Your task to perform on an android device: Go to Android settings Image 0: 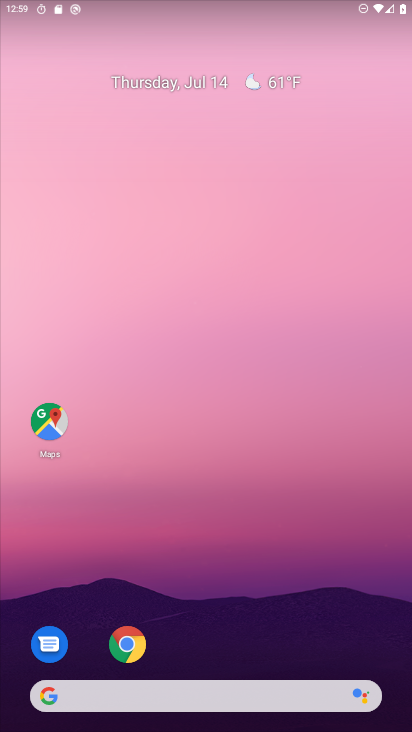
Step 0: drag from (318, 666) to (298, 76)
Your task to perform on an android device: Go to Android settings Image 1: 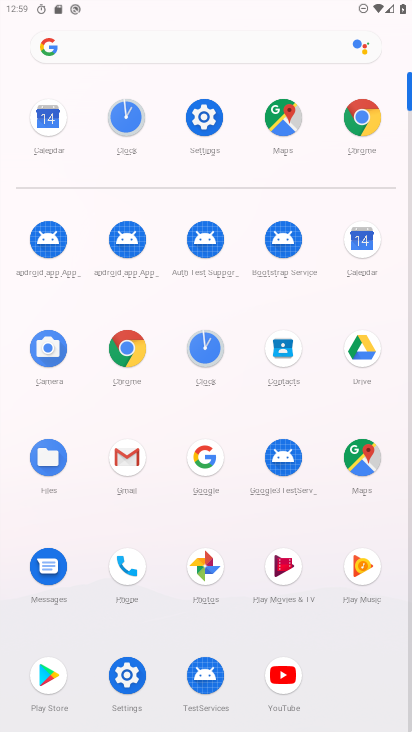
Step 1: click (207, 122)
Your task to perform on an android device: Go to Android settings Image 2: 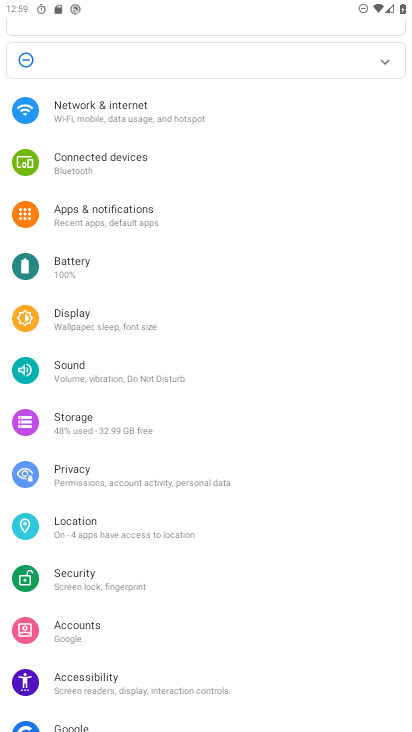
Step 2: drag from (261, 709) to (243, 137)
Your task to perform on an android device: Go to Android settings Image 3: 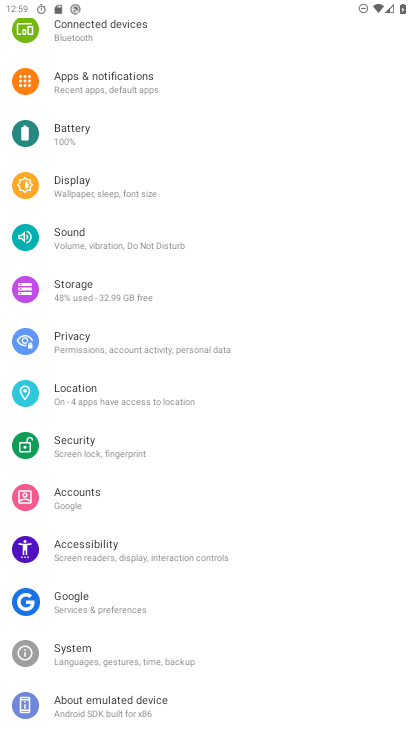
Step 3: click (169, 696)
Your task to perform on an android device: Go to Android settings Image 4: 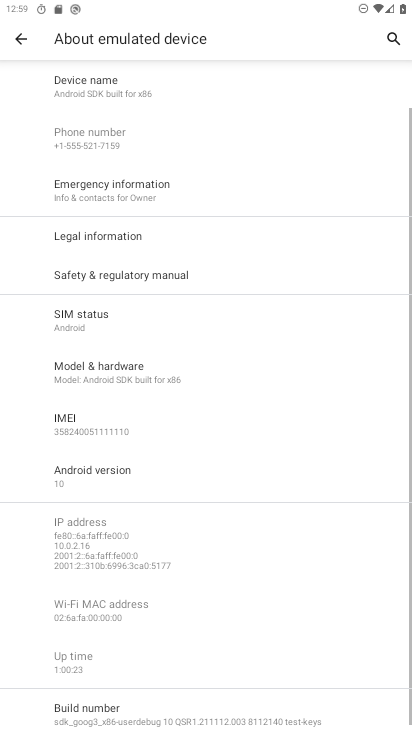
Step 4: task complete